Your task to perform on an android device: Open network settings Image 0: 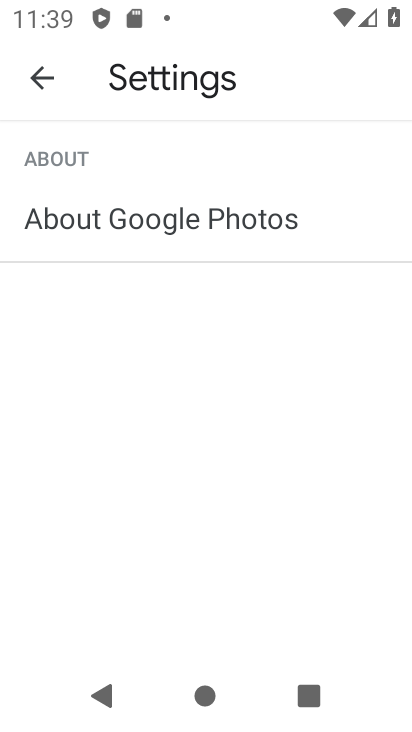
Step 0: press home button
Your task to perform on an android device: Open network settings Image 1: 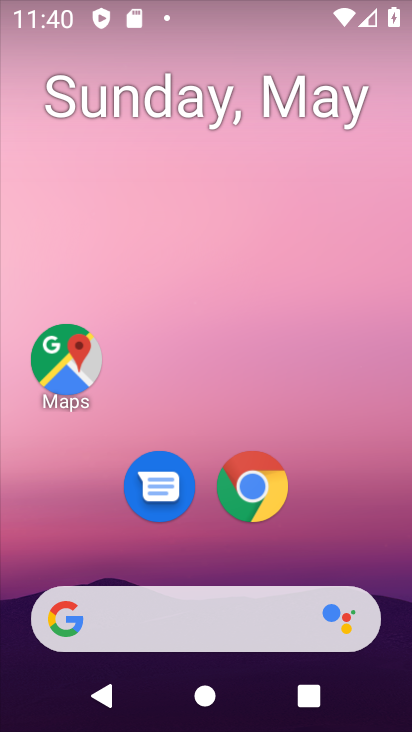
Step 1: drag from (322, 540) to (327, 109)
Your task to perform on an android device: Open network settings Image 2: 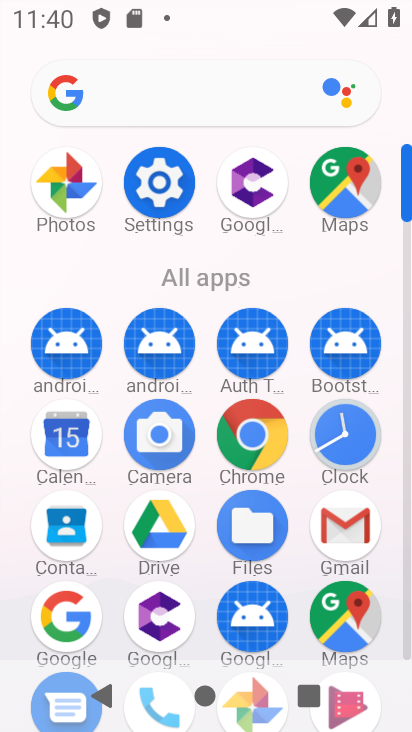
Step 2: click (162, 166)
Your task to perform on an android device: Open network settings Image 3: 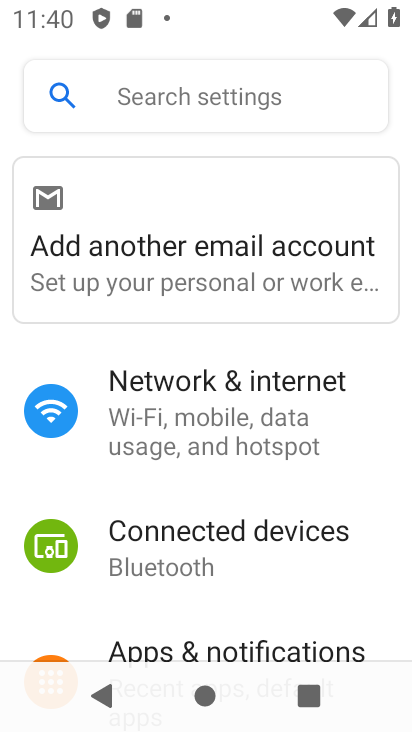
Step 3: click (169, 452)
Your task to perform on an android device: Open network settings Image 4: 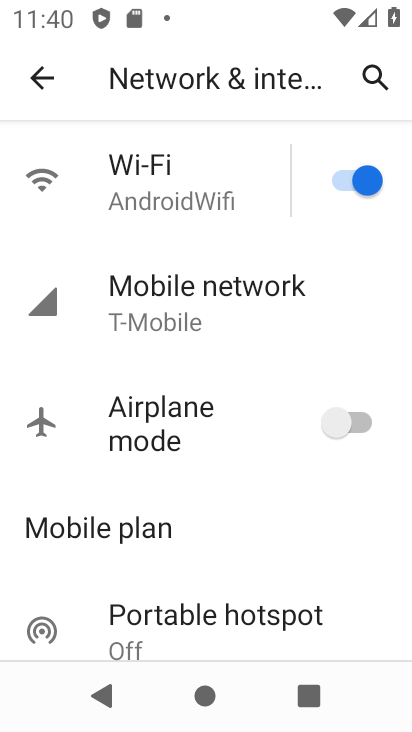
Step 4: task complete